Your task to perform on an android device: Open notification settings Image 0: 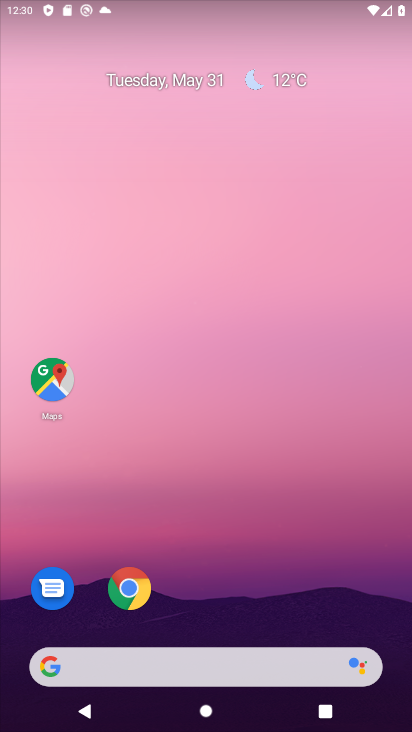
Step 0: drag from (398, 615) to (376, 215)
Your task to perform on an android device: Open notification settings Image 1: 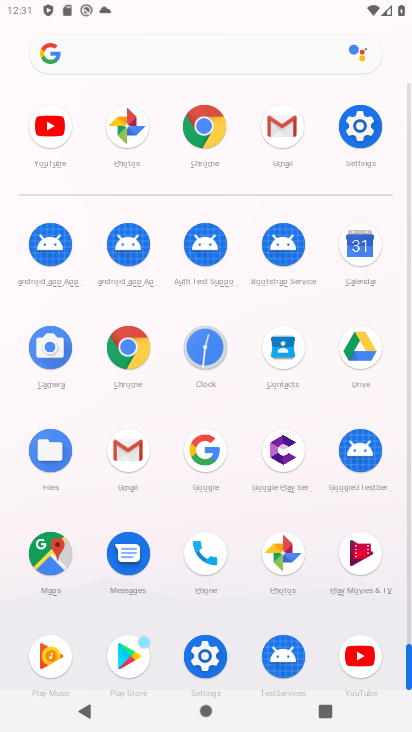
Step 1: click (207, 661)
Your task to perform on an android device: Open notification settings Image 2: 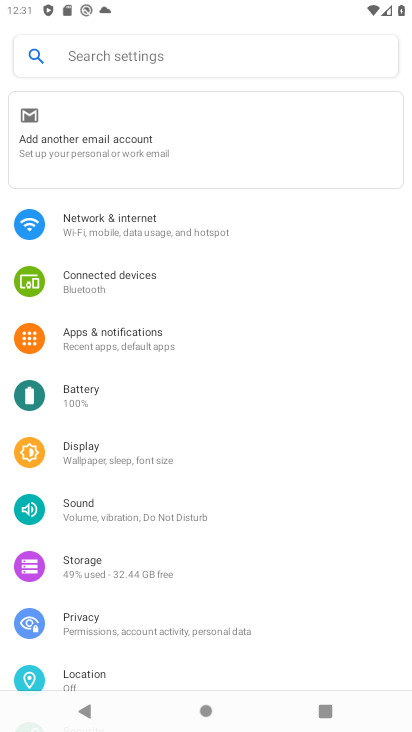
Step 2: click (90, 340)
Your task to perform on an android device: Open notification settings Image 3: 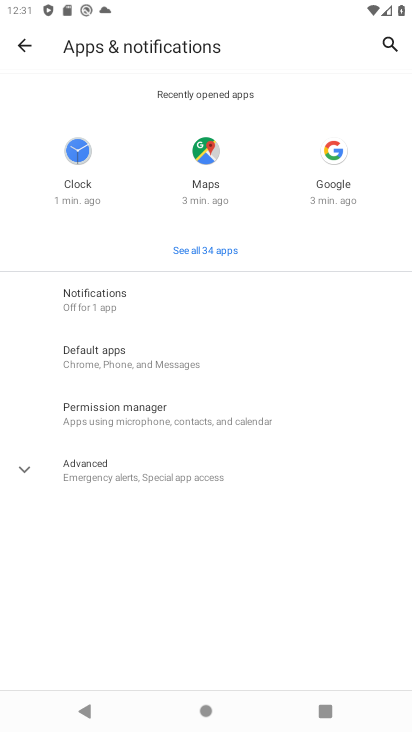
Step 3: click (102, 293)
Your task to perform on an android device: Open notification settings Image 4: 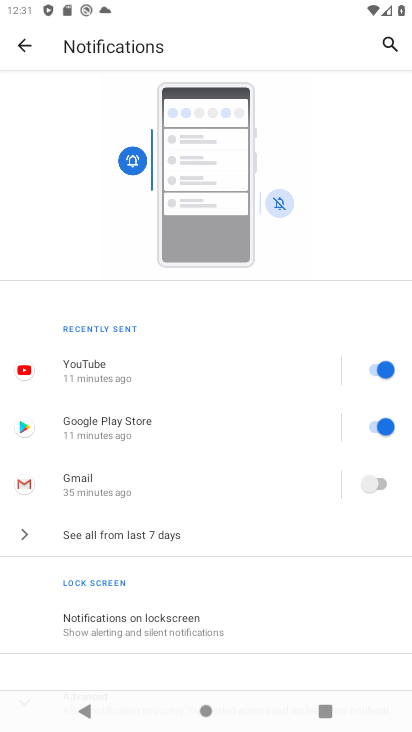
Step 4: drag from (240, 608) to (256, 354)
Your task to perform on an android device: Open notification settings Image 5: 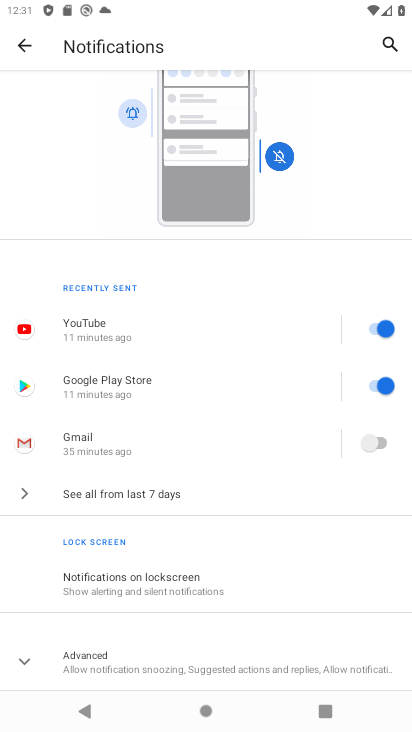
Step 5: click (105, 582)
Your task to perform on an android device: Open notification settings Image 6: 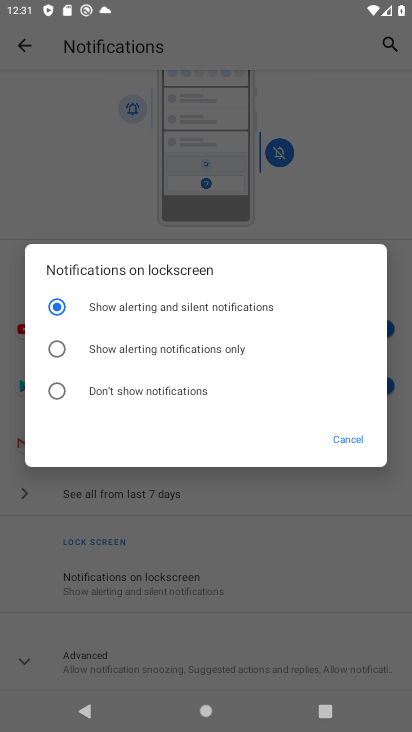
Step 6: click (331, 439)
Your task to perform on an android device: Open notification settings Image 7: 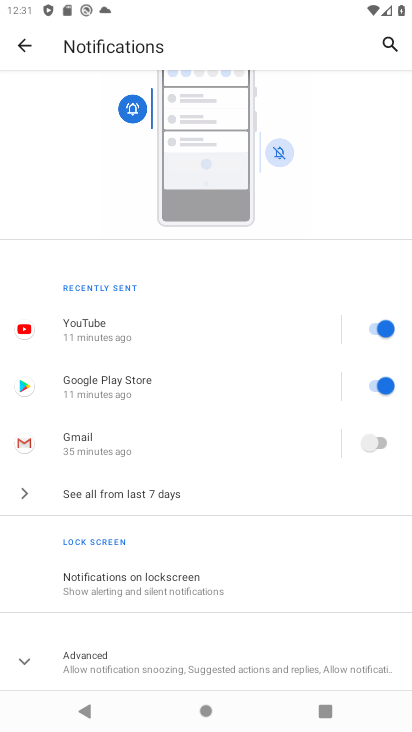
Step 7: task complete